Your task to perform on an android device: open app "DuckDuckGo Privacy Browser" (install if not already installed), go to login, and select forgot password Image 0: 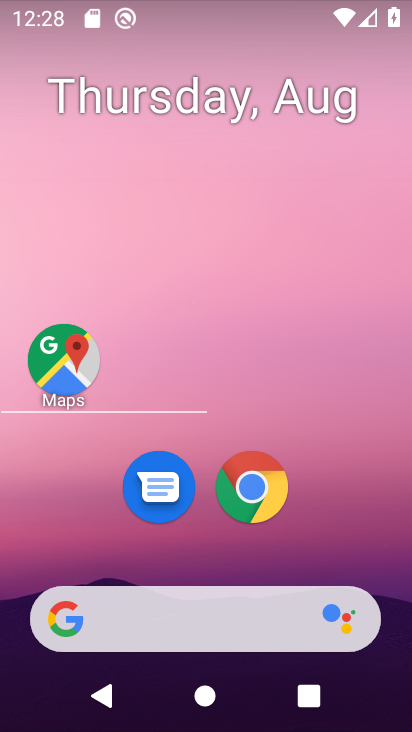
Step 0: press home button
Your task to perform on an android device: open app "DuckDuckGo Privacy Browser" (install if not already installed), go to login, and select forgot password Image 1: 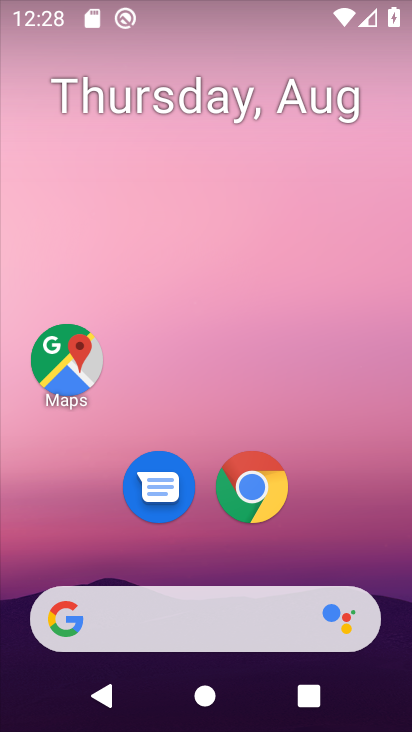
Step 1: drag from (201, 557) to (260, 84)
Your task to perform on an android device: open app "DuckDuckGo Privacy Browser" (install if not already installed), go to login, and select forgot password Image 2: 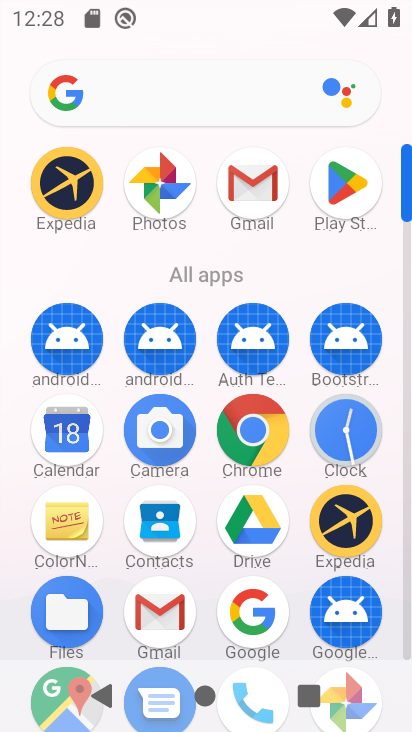
Step 2: click (343, 180)
Your task to perform on an android device: open app "DuckDuckGo Privacy Browser" (install if not already installed), go to login, and select forgot password Image 3: 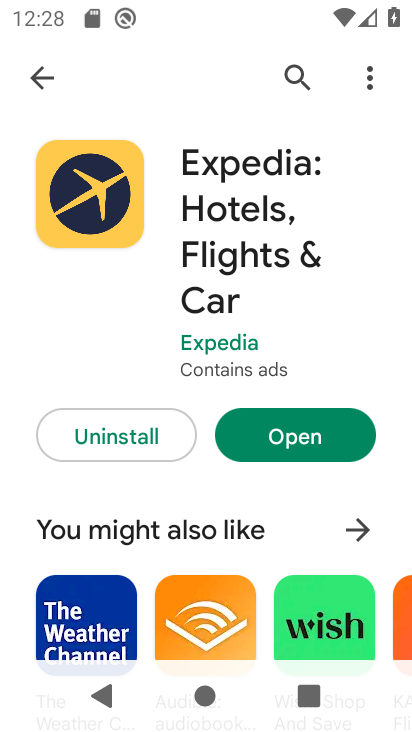
Step 3: click (287, 68)
Your task to perform on an android device: open app "DuckDuckGo Privacy Browser" (install if not already installed), go to login, and select forgot password Image 4: 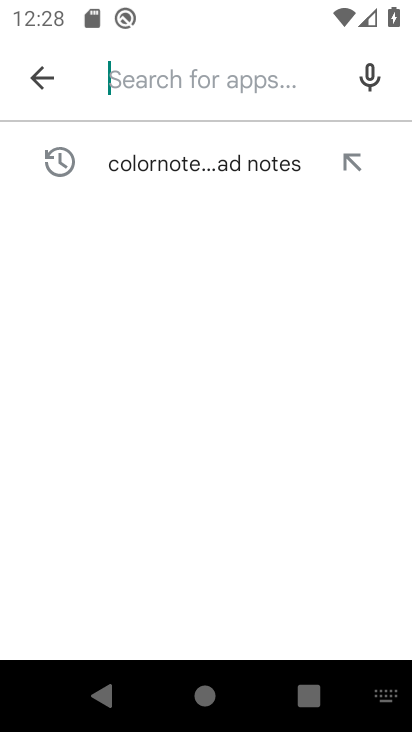
Step 4: type "DuckDuckGo Privacy Browser"
Your task to perform on an android device: open app "DuckDuckGo Privacy Browser" (install if not already installed), go to login, and select forgot password Image 5: 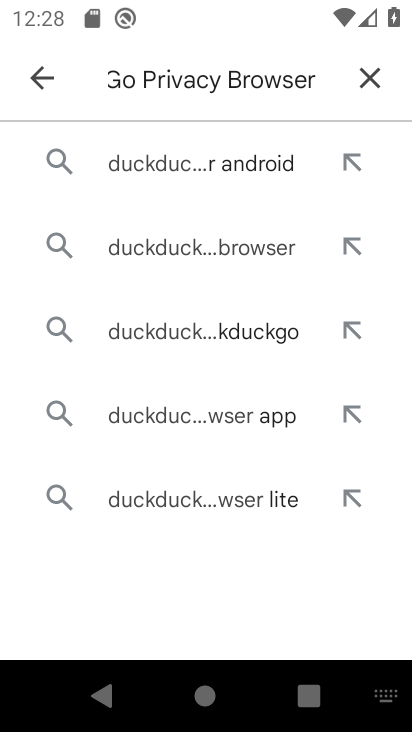
Step 5: click (187, 174)
Your task to perform on an android device: open app "DuckDuckGo Privacy Browser" (install if not already installed), go to login, and select forgot password Image 6: 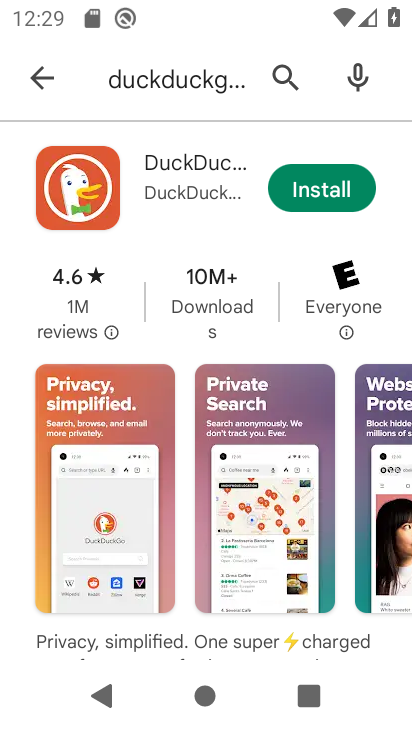
Step 6: click (334, 185)
Your task to perform on an android device: open app "DuckDuckGo Privacy Browser" (install if not already installed), go to login, and select forgot password Image 7: 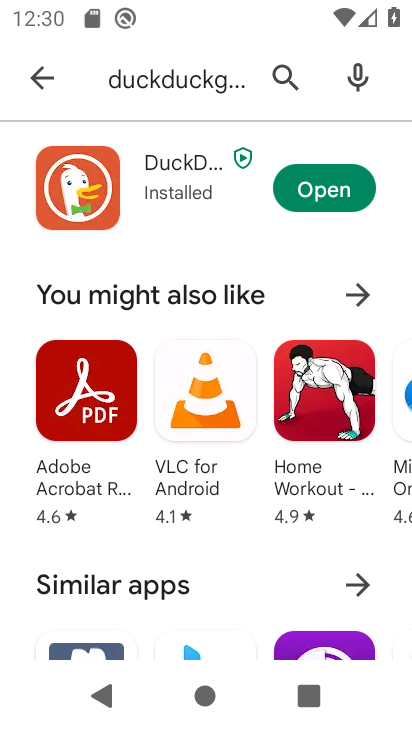
Step 7: click (327, 195)
Your task to perform on an android device: open app "DuckDuckGo Privacy Browser" (install if not already installed), go to login, and select forgot password Image 8: 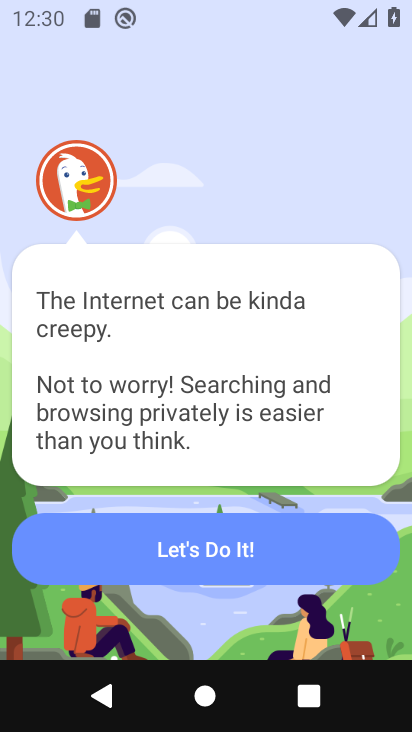
Step 8: click (215, 548)
Your task to perform on an android device: open app "DuckDuckGo Privacy Browser" (install if not already installed), go to login, and select forgot password Image 9: 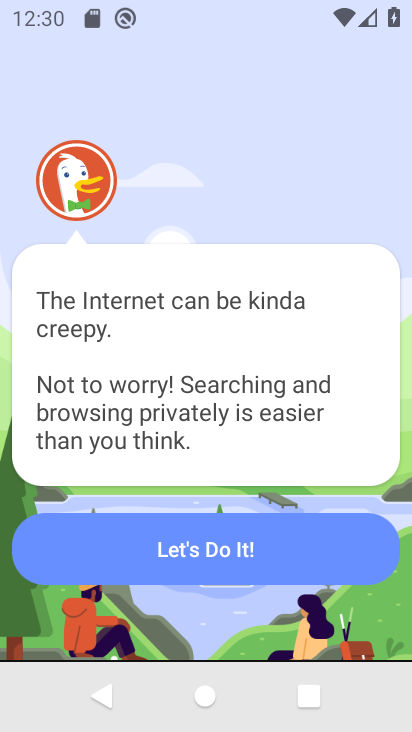
Step 9: task complete